Your task to perform on an android device: Go to network settings Image 0: 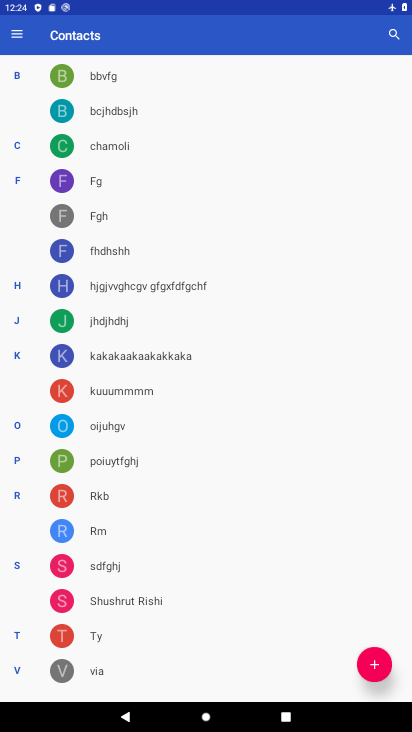
Step 0: press home button
Your task to perform on an android device: Go to network settings Image 1: 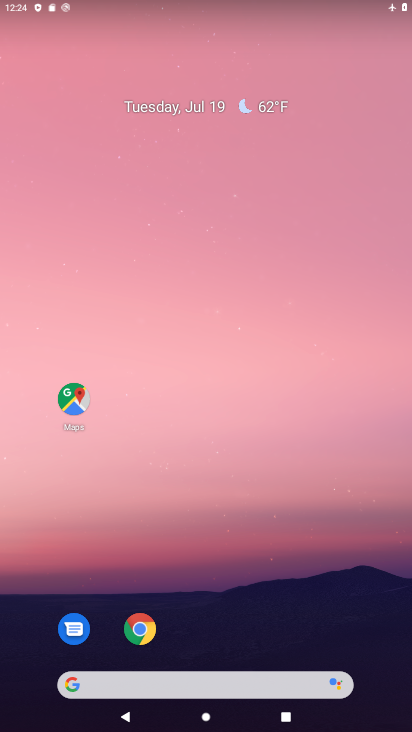
Step 1: drag from (217, 661) to (193, 97)
Your task to perform on an android device: Go to network settings Image 2: 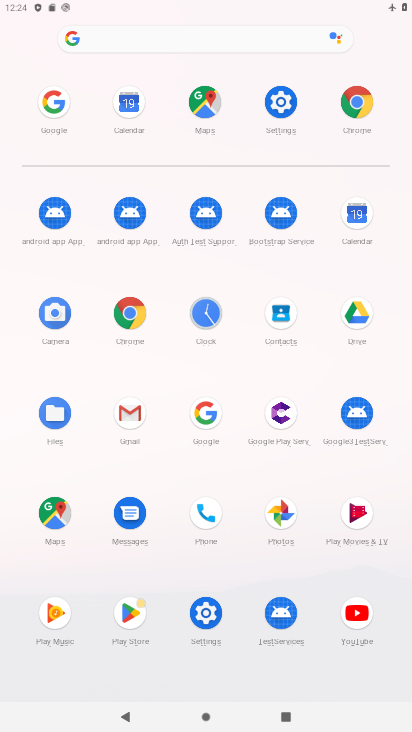
Step 2: click (281, 107)
Your task to perform on an android device: Go to network settings Image 3: 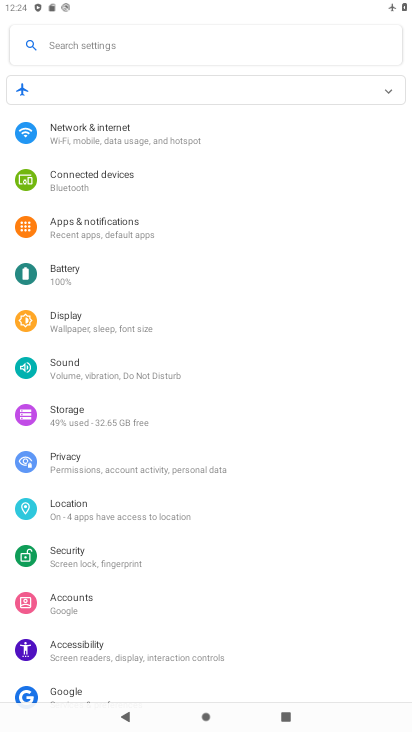
Step 3: click (85, 131)
Your task to perform on an android device: Go to network settings Image 4: 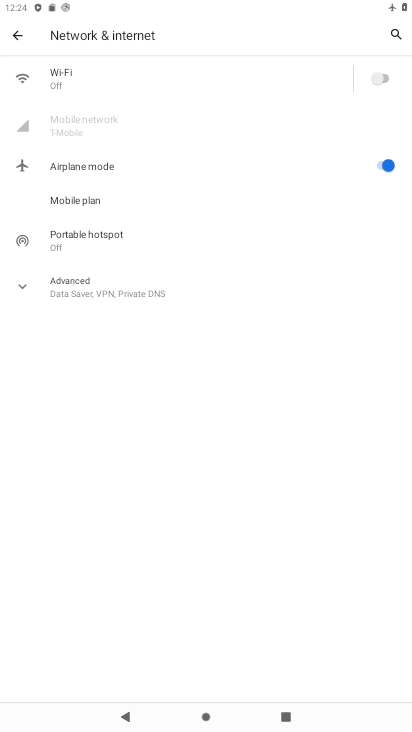
Step 4: click (92, 294)
Your task to perform on an android device: Go to network settings Image 5: 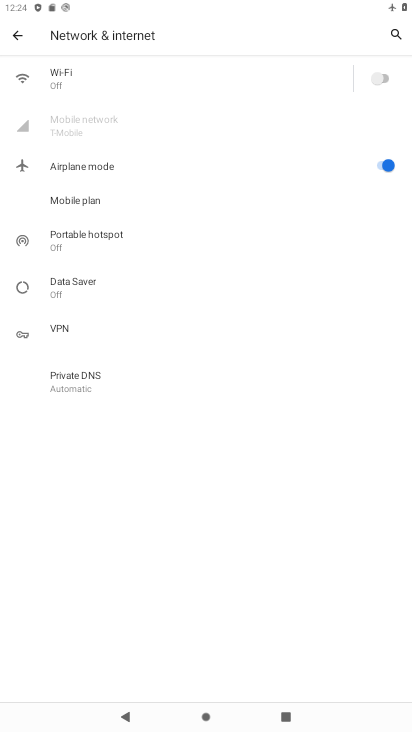
Step 5: task complete